Your task to perform on an android device: Do I have any events this weekend? Image 0: 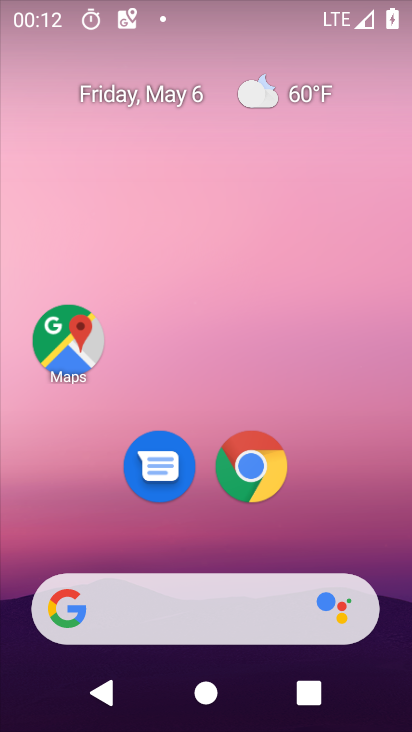
Step 0: drag from (198, 568) to (226, 300)
Your task to perform on an android device: Do I have any events this weekend? Image 1: 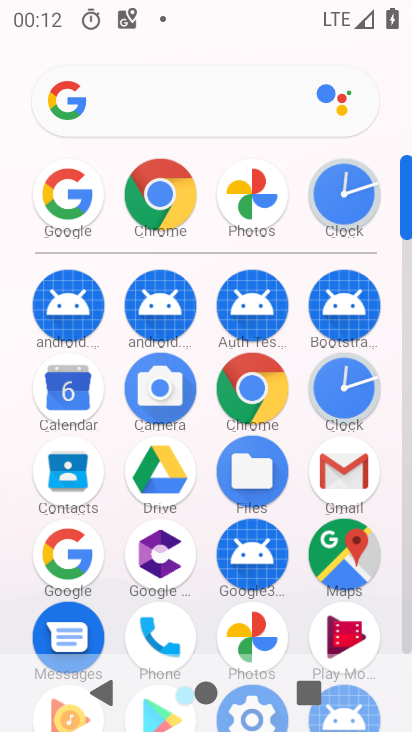
Step 1: click (70, 389)
Your task to perform on an android device: Do I have any events this weekend? Image 2: 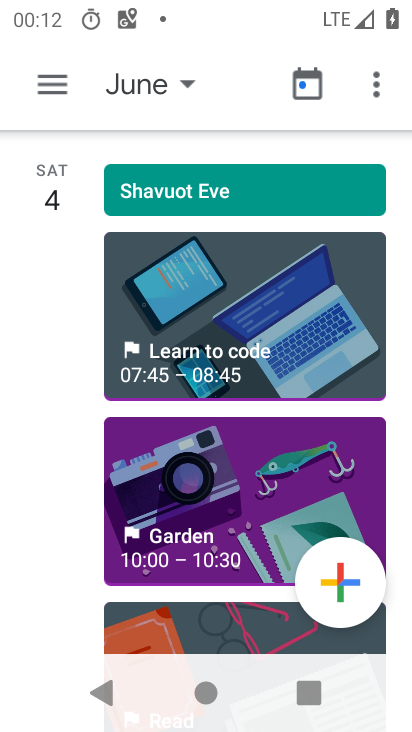
Step 2: click (159, 81)
Your task to perform on an android device: Do I have any events this weekend? Image 3: 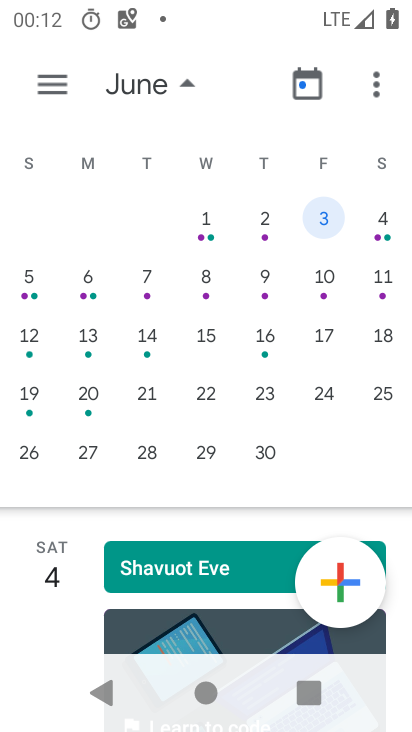
Step 3: drag from (191, 326) to (340, 395)
Your task to perform on an android device: Do I have any events this weekend? Image 4: 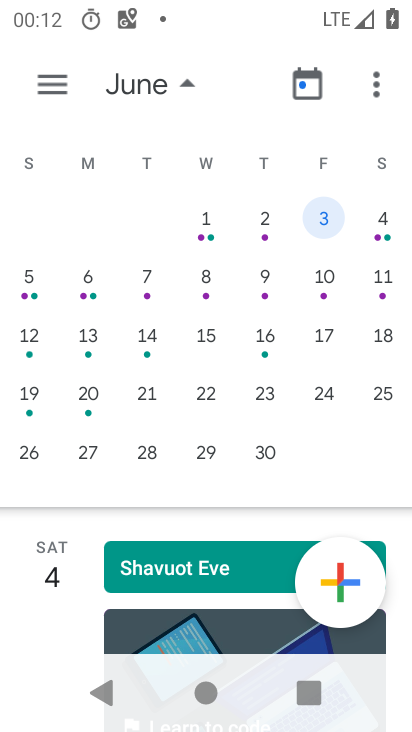
Step 4: drag from (141, 312) to (400, 300)
Your task to perform on an android device: Do I have any events this weekend? Image 5: 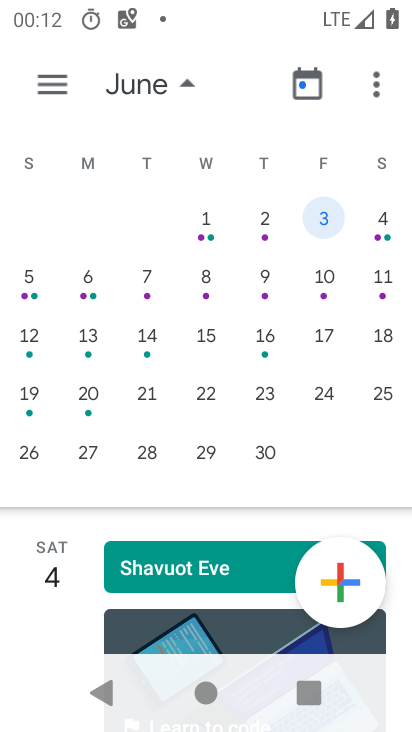
Step 5: drag from (107, 299) to (323, 302)
Your task to perform on an android device: Do I have any events this weekend? Image 6: 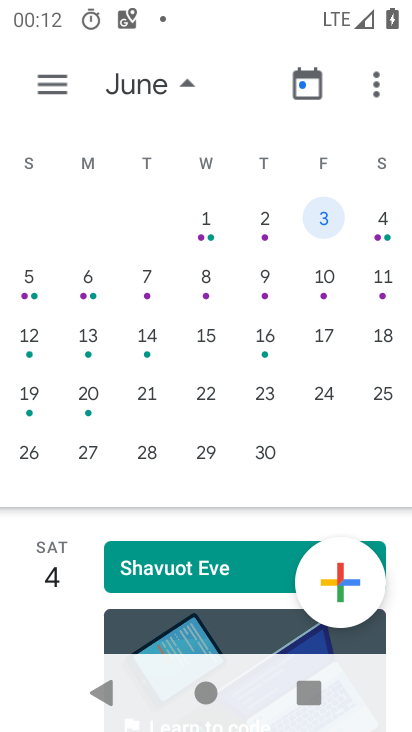
Step 6: drag from (111, 317) to (393, 369)
Your task to perform on an android device: Do I have any events this weekend? Image 7: 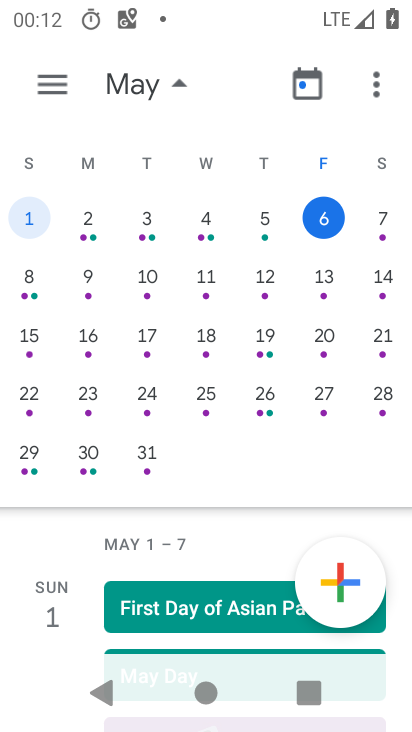
Step 7: click (27, 284)
Your task to perform on an android device: Do I have any events this weekend? Image 8: 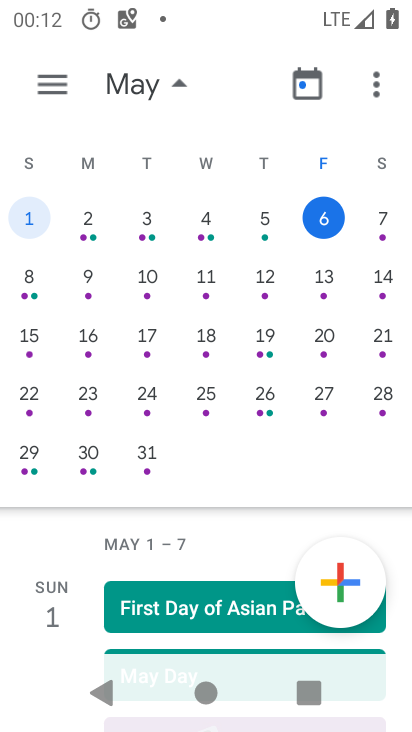
Step 8: click (34, 284)
Your task to perform on an android device: Do I have any events this weekend? Image 9: 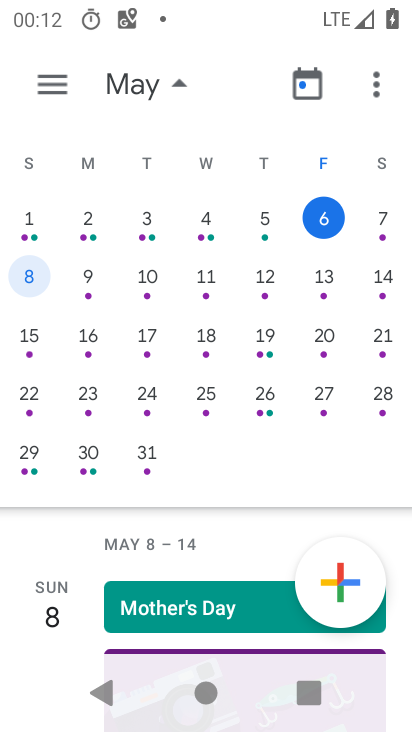
Step 9: task complete